Your task to perform on an android device: change your default location settings in chrome Image 0: 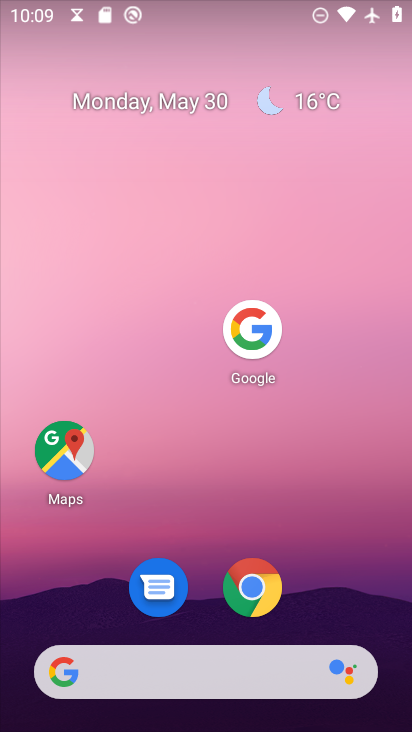
Step 0: click (260, 594)
Your task to perform on an android device: change your default location settings in chrome Image 1: 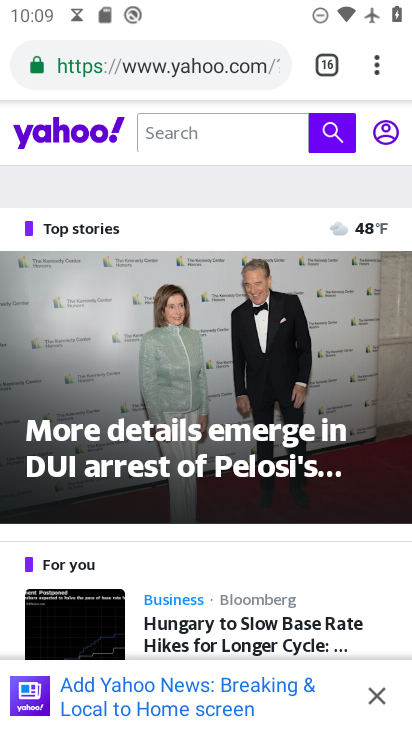
Step 1: drag from (379, 71) to (317, 647)
Your task to perform on an android device: change your default location settings in chrome Image 2: 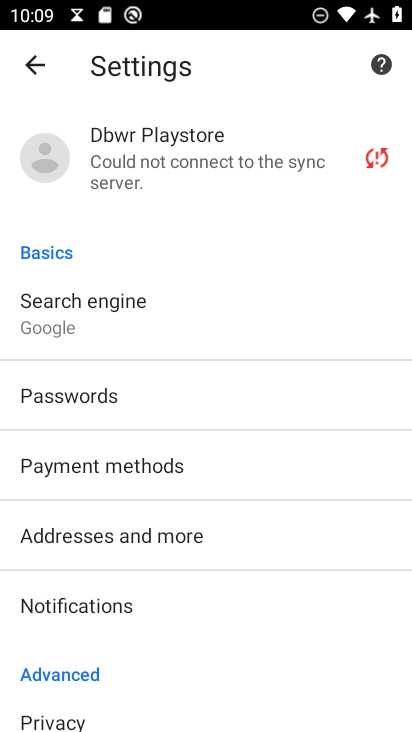
Step 2: drag from (267, 664) to (351, 275)
Your task to perform on an android device: change your default location settings in chrome Image 3: 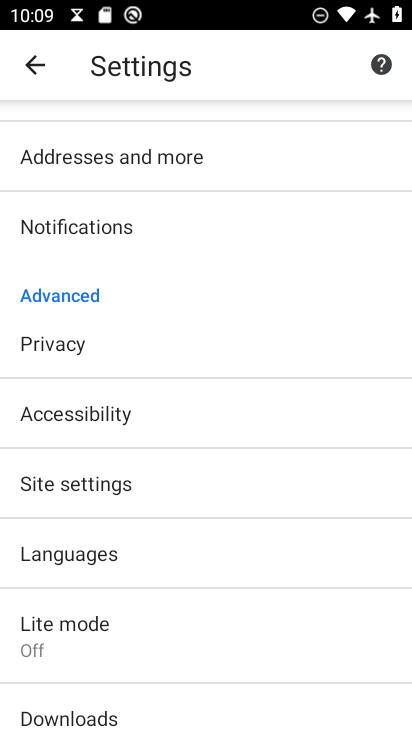
Step 3: click (81, 495)
Your task to perform on an android device: change your default location settings in chrome Image 4: 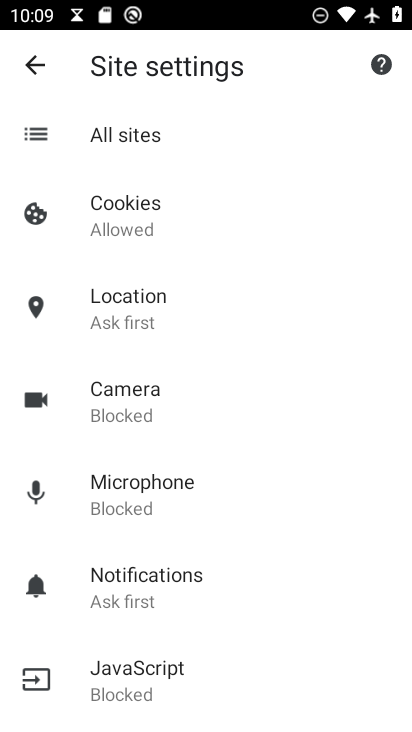
Step 4: click (152, 320)
Your task to perform on an android device: change your default location settings in chrome Image 5: 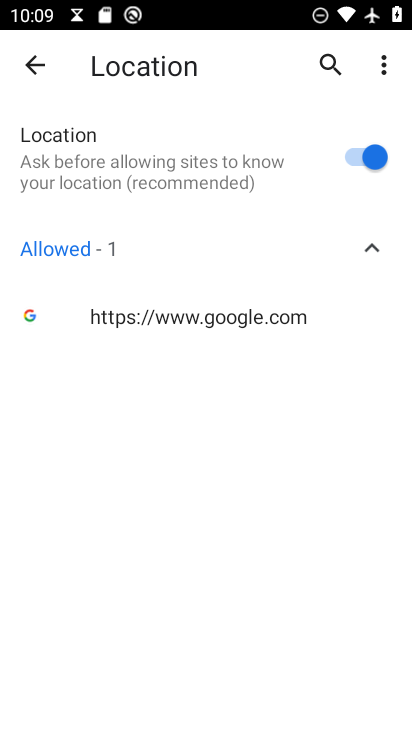
Step 5: click (343, 149)
Your task to perform on an android device: change your default location settings in chrome Image 6: 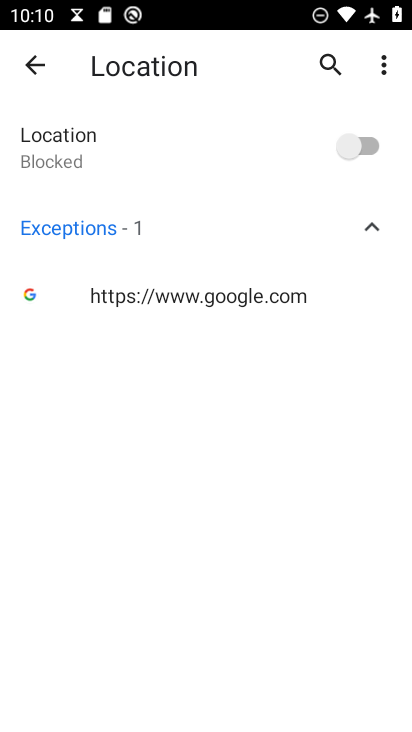
Step 6: task complete